Your task to perform on an android device: change timer sound Image 0: 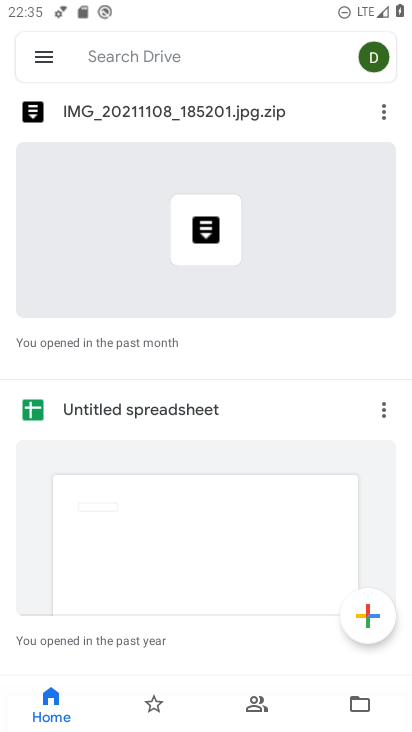
Step 0: press home button
Your task to perform on an android device: change timer sound Image 1: 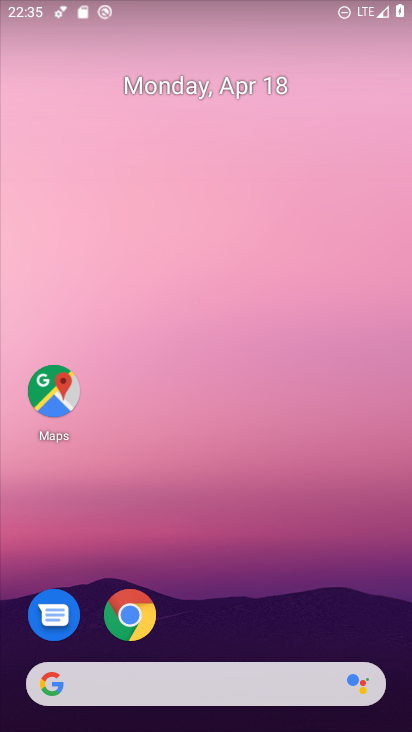
Step 1: drag from (263, 608) to (256, 32)
Your task to perform on an android device: change timer sound Image 2: 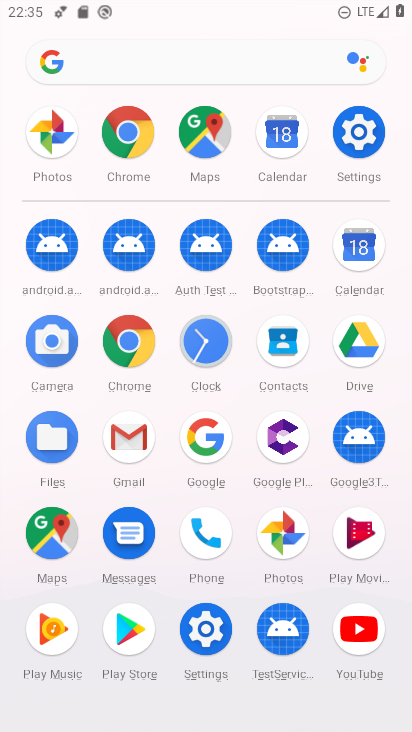
Step 2: click (204, 345)
Your task to perform on an android device: change timer sound Image 3: 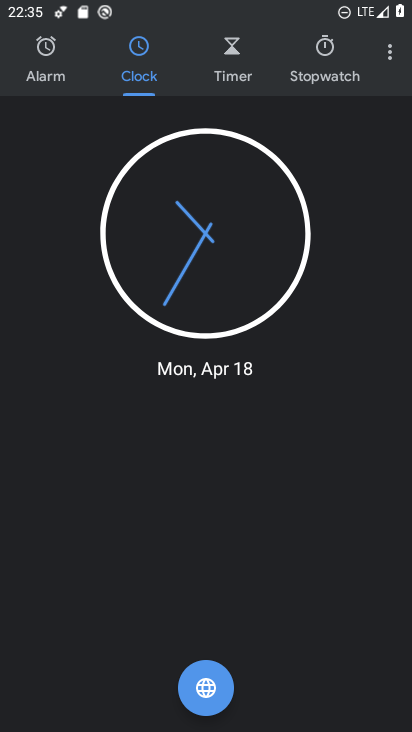
Step 3: click (394, 62)
Your task to perform on an android device: change timer sound Image 4: 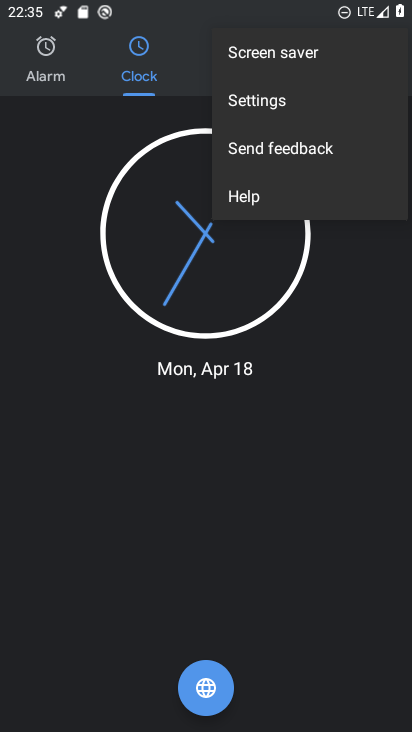
Step 4: click (247, 108)
Your task to perform on an android device: change timer sound Image 5: 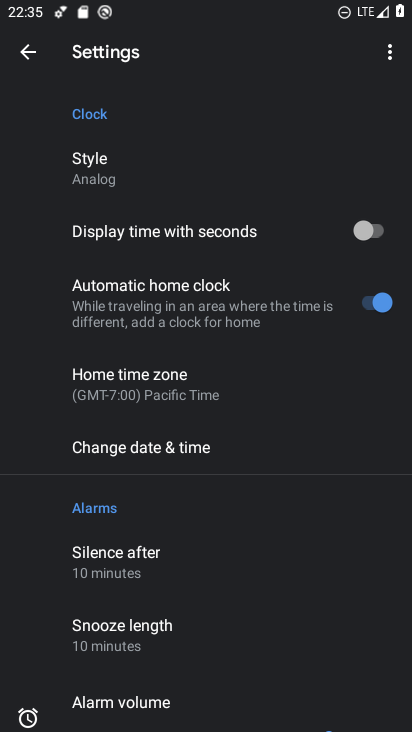
Step 5: drag from (256, 575) to (233, 151)
Your task to perform on an android device: change timer sound Image 6: 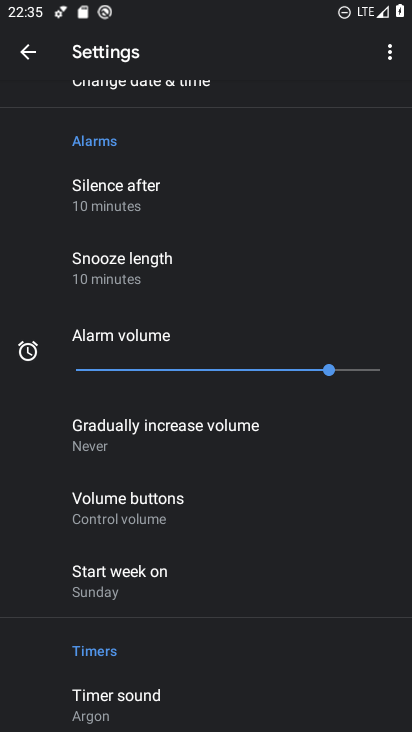
Step 6: drag from (219, 479) to (213, 158)
Your task to perform on an android device: change timer sound Image 7: 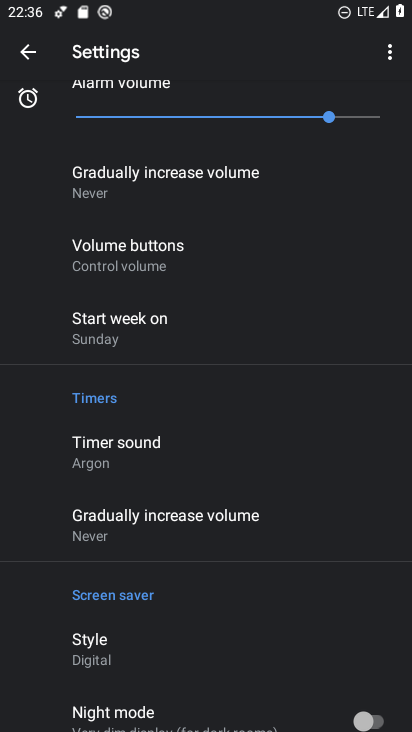
Step 7: click (114, 456)
Your task to perform on an android device: change timer sound Image 8: 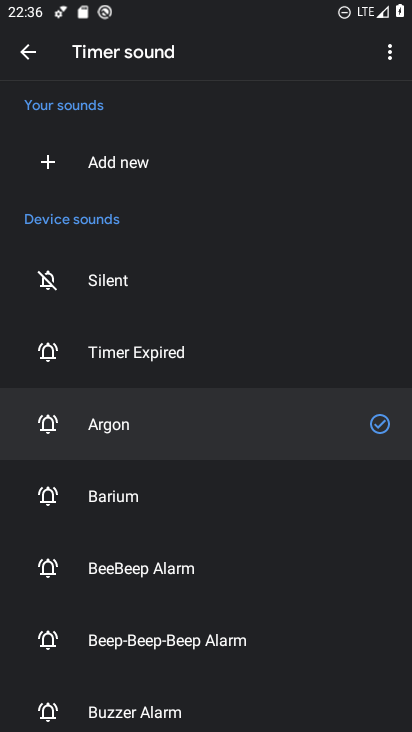
Step 8: click (109, 594)
Your task to perform on an android device: change timer sound Image 9: 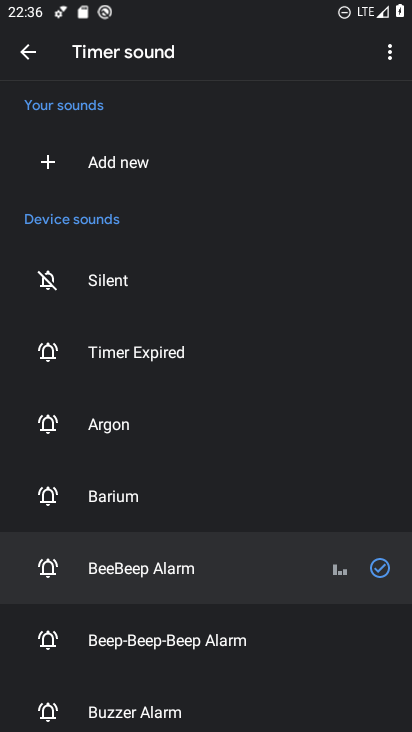
Step 9: task complete